Your task to perform on an android device: Open maps Image 0: 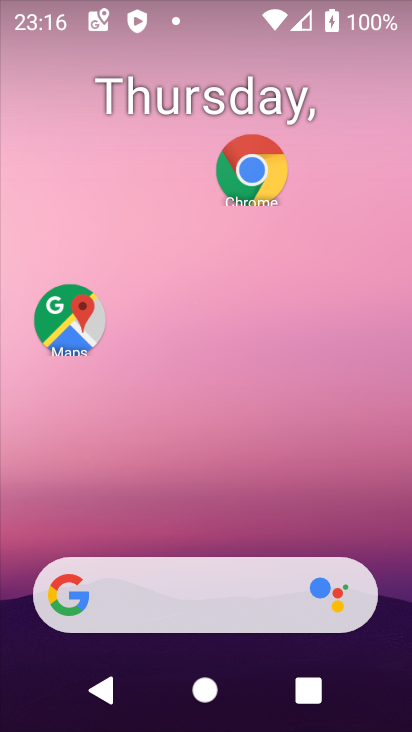
Step 0: click (251, 166)
Your task to perform on an android device: Open maps Image 1: 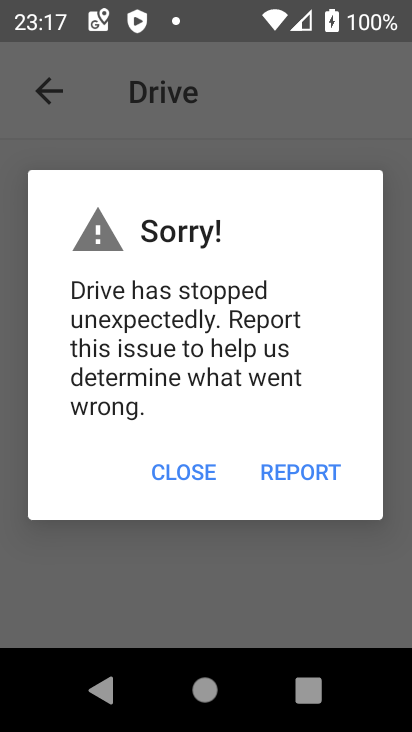
Step 1: click (207, 481)
Your task to perform on an android device: Open maps Image 2: 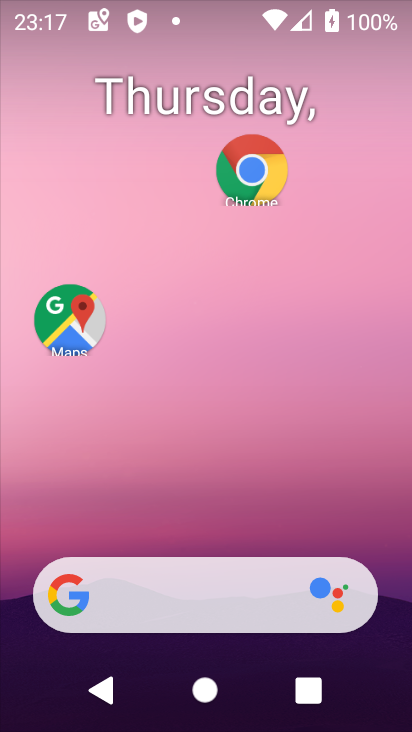
Step 2: drag from (209, 552) to (235, 142)
Your task to perform on an android device: Open maps Image 3: 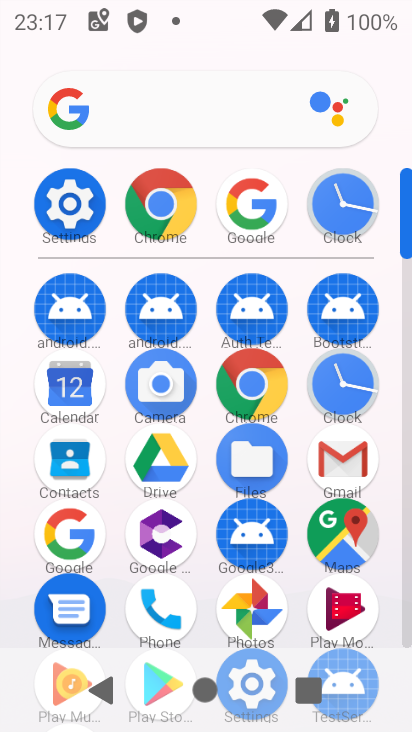
Step 3: click (346, 531)
Your task to perform on an android device: Open maps Image 4: 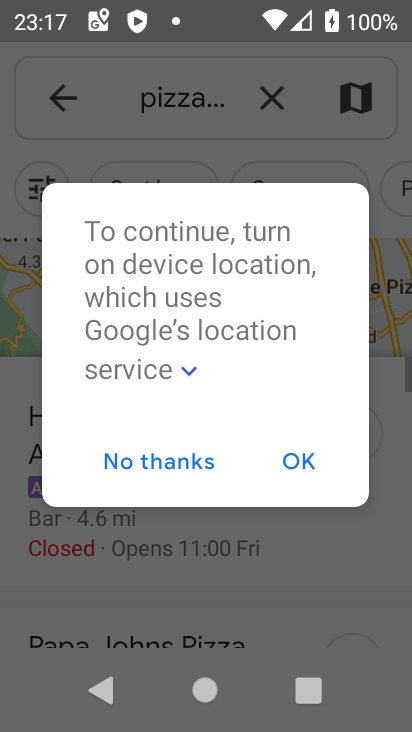
Step 4: click (316, 458)
Your task to perform on an android device: Open maps Image 5: 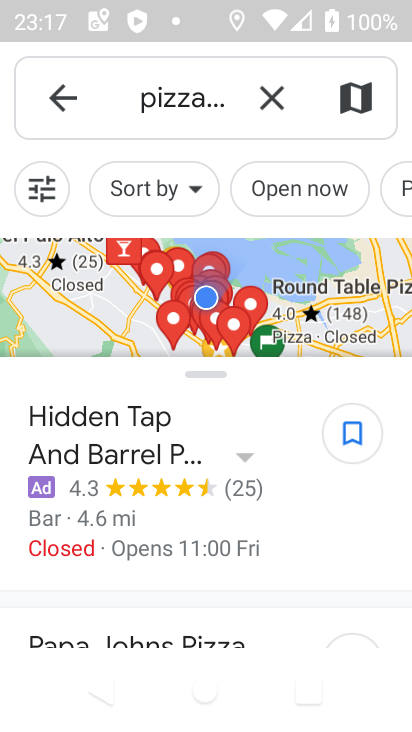
Step 5: click (267, 100)
Your task to perform on an android device: Open maps Image 6: 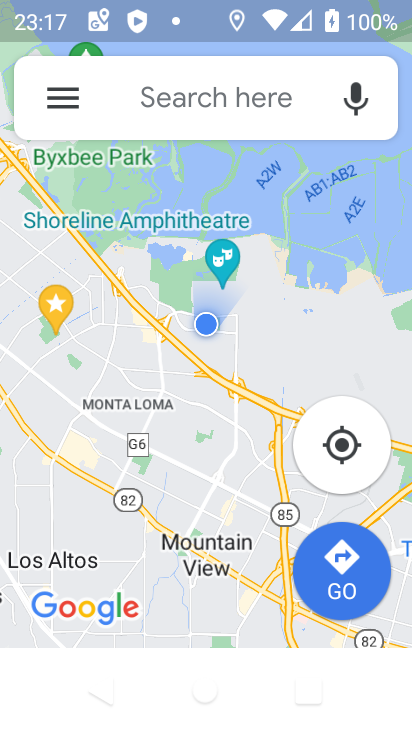
Step 6: task complete